Your task to perform on an android device: turn on bluetooth scan Image 0: 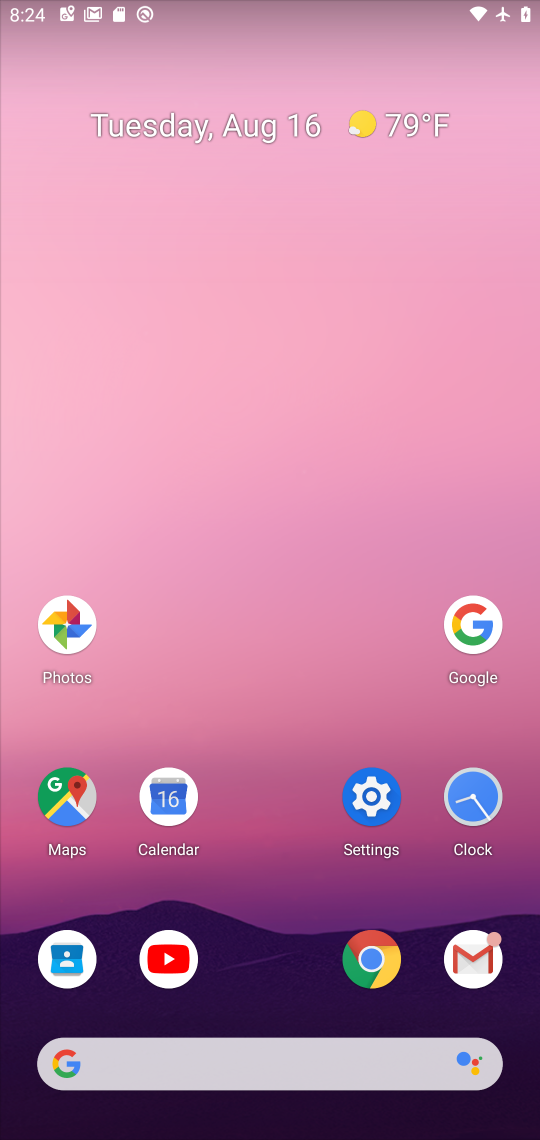
Step 0: click (369, 801)
Your task to perform on an android device: turn on bluetooth scan Image 1: 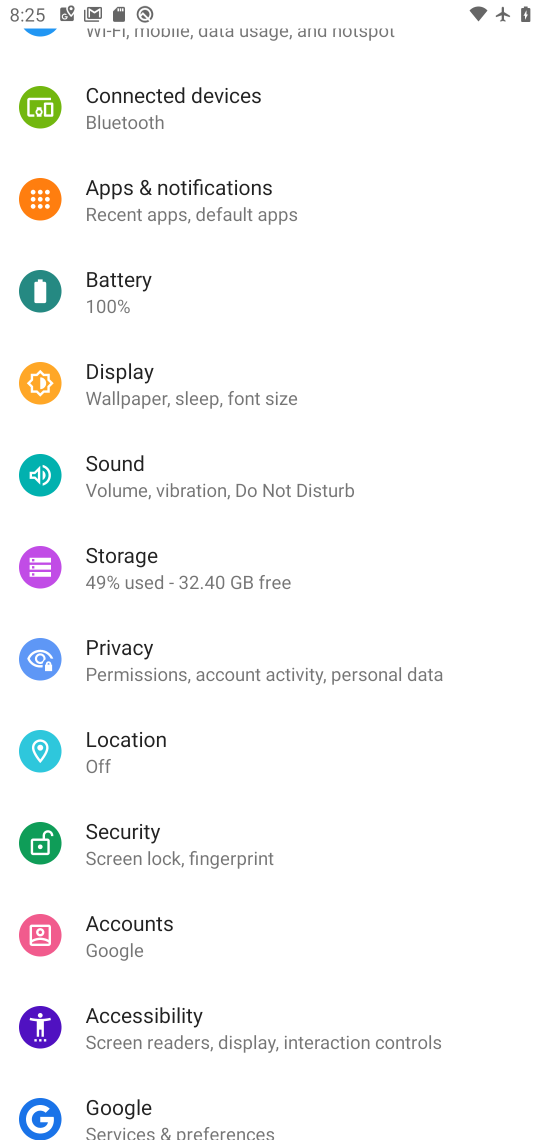
Step 1: click (119, 748)
Your task to perform on an android device: turn on bluetooth scan Image 2: 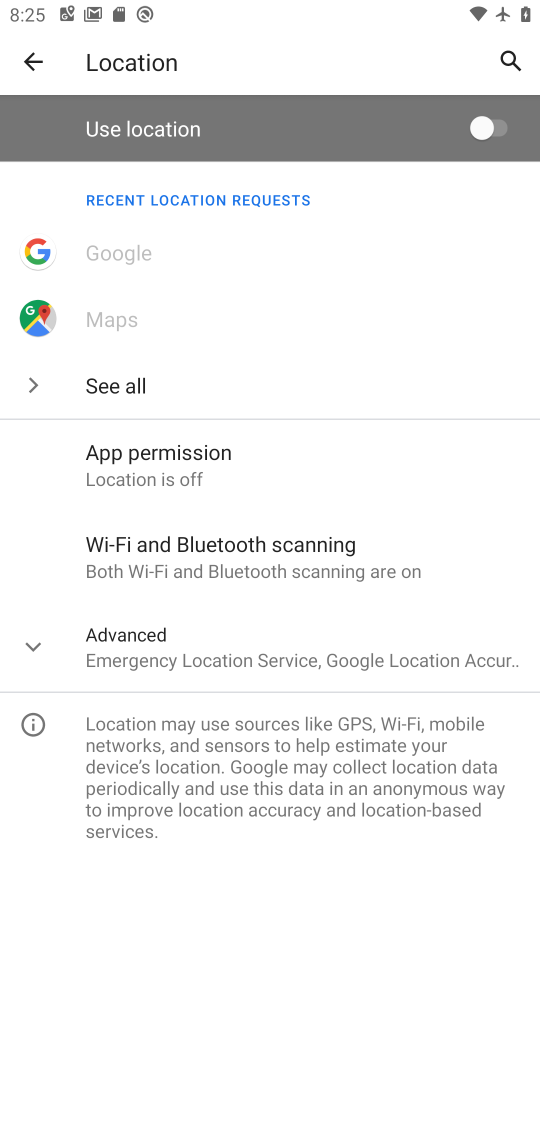
Step 2: click (169, 542)
Your task to perform on an android device: turn on bluetooth scan Image 3: 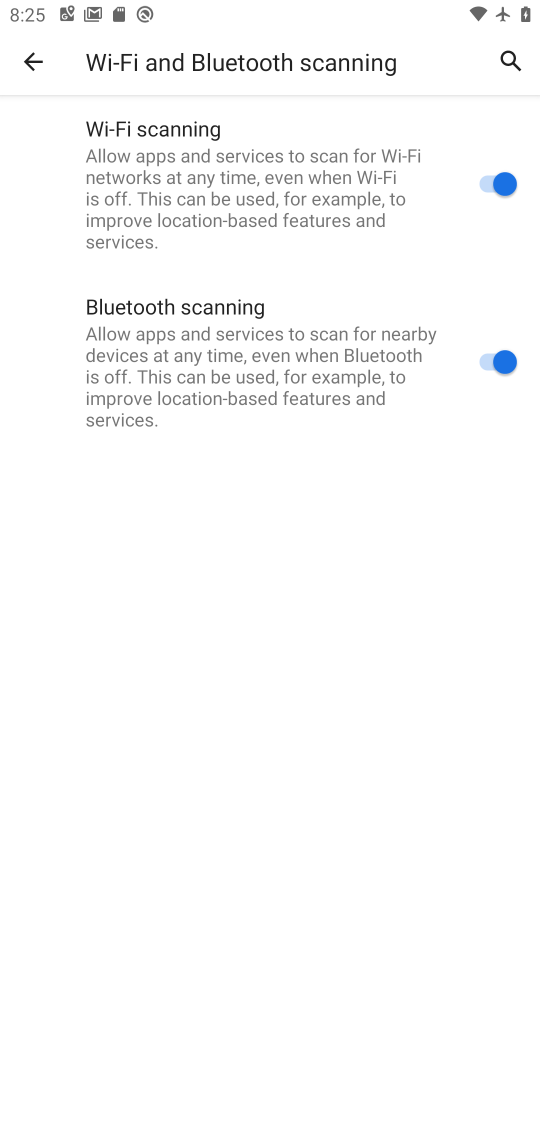
Step 3: task complete